Your task to perform on an android device: turn off javascript in the chrome app Image 0: 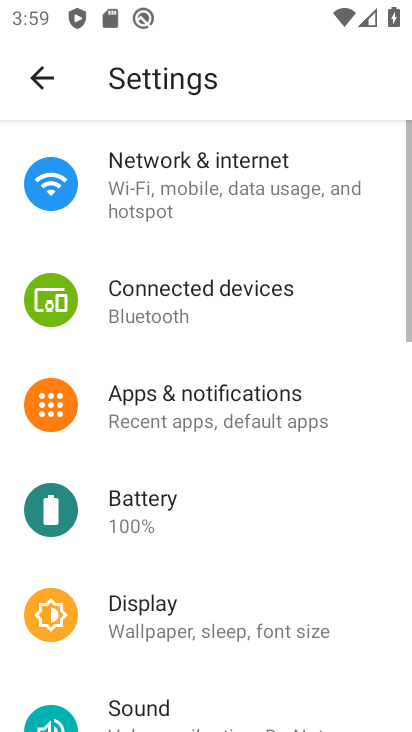
Step 0: press back button
Your task to perform on an android device: turn off javascript in the chrome app Image 1: 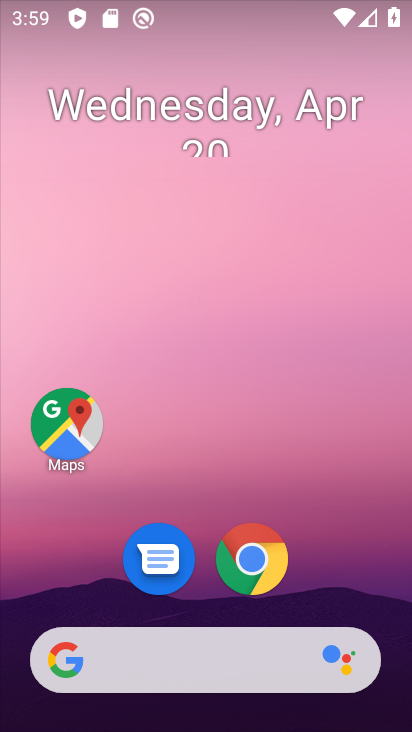
Step 1: click (277, 580)
Your task to perform on an android device: turn off javascript in the chrome app Image 2: 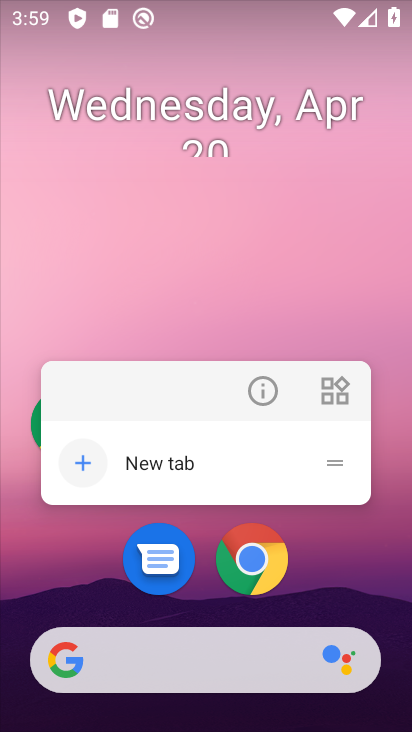
Step 2: click (265, 575)
Your task to perform on an android device: turn off javascript in the chrome app Image 3: 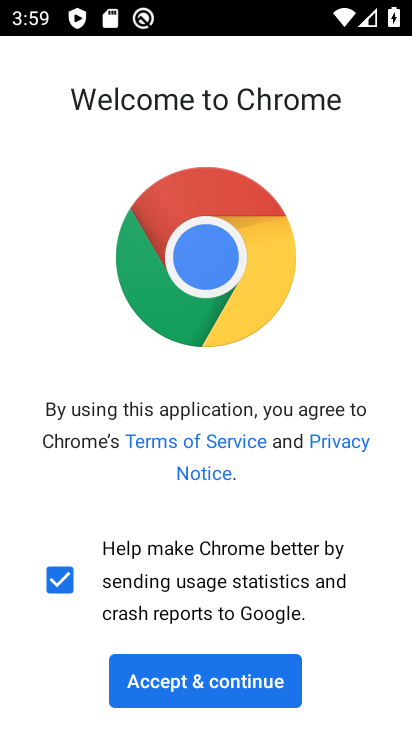
Step 3: click (153, 672)
Your task to perform on an android device: turn off javascript in the chrome app Image 4: 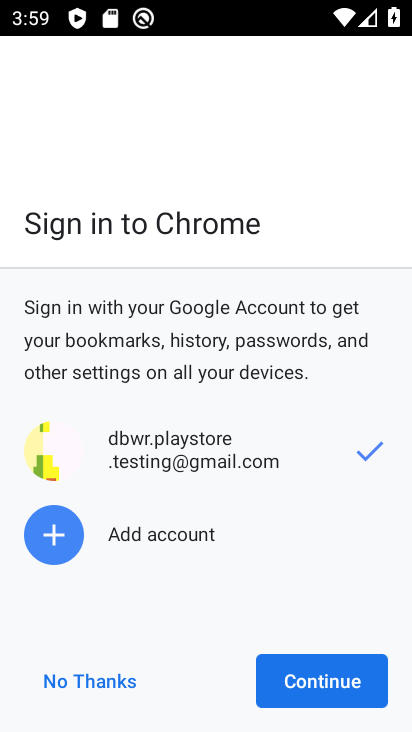
Step 4: click (286, 685)
Your task to perform on an android device: turn off javascript in the chrome app Image 5: 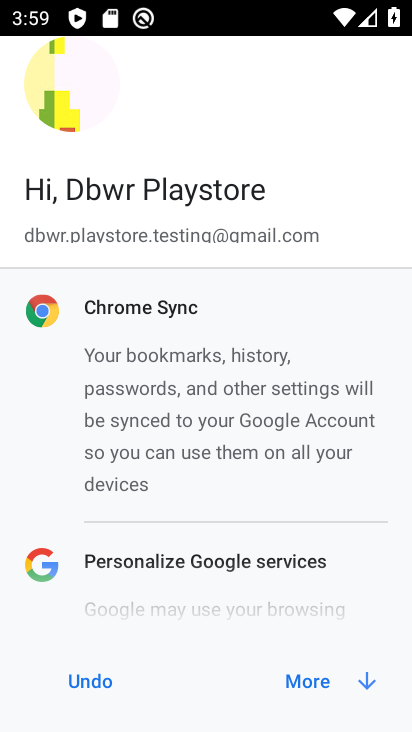
Step 5: click (286, 685)
Your task to perform on an android device: turn off javascript in the chrome app Image 6: 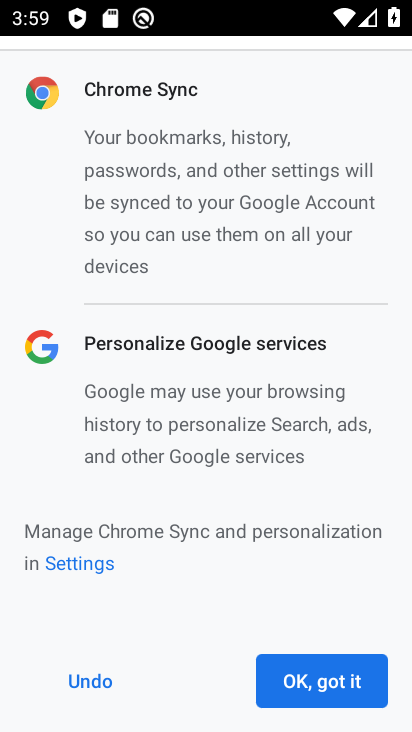
Step 6: click (286, 685)
Your task to perform on an android device: turn off javascript in the chrome app Image 7: 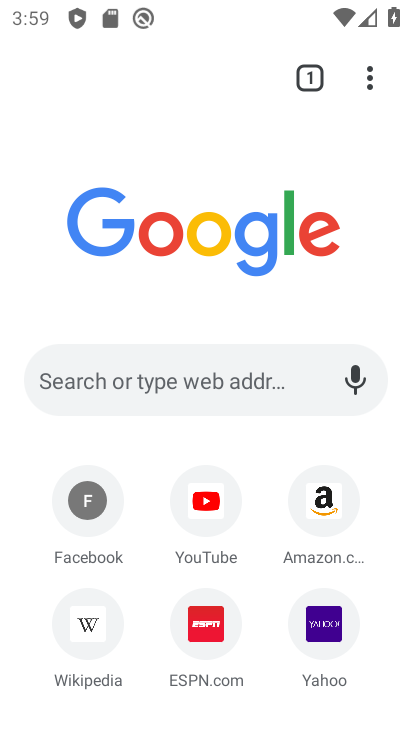
Step 7: click (362, 82)
Your task to perform on an android device: turn off javascript in the chrome app Image 8: 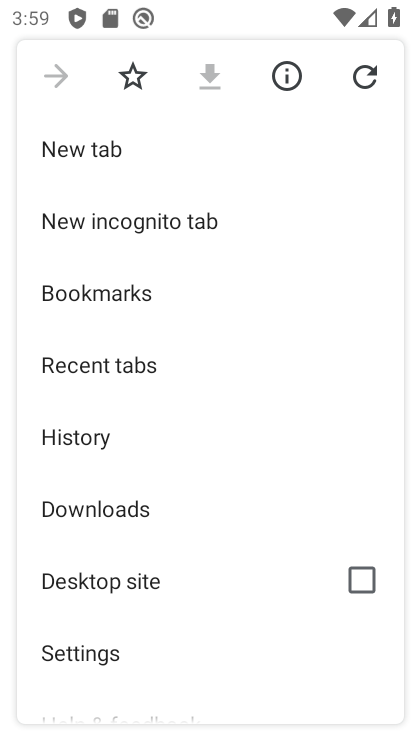
Step 8: click (119, 668)
Your task to perform on an android device: turn off javascript in the chrome app Image 9: 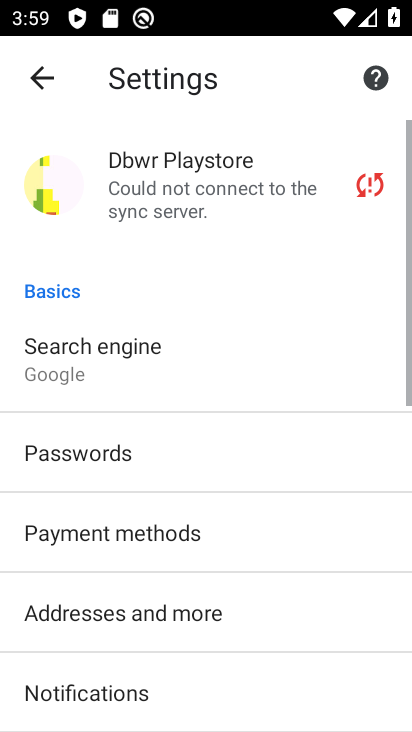
Step 9: drag from (119, 668) to (99, 494)
Your task to perform on an android device: turn off javascript in the chrome app Image 10: 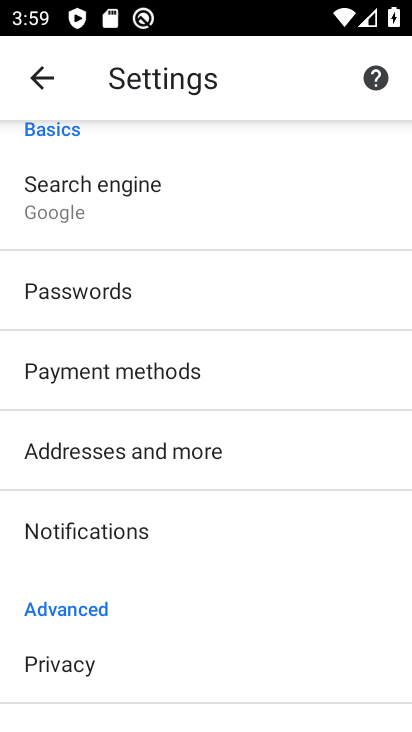
Step 10: drag from (114, 599) to (135, 278)
Your task to perform on an android device: turn off javascript in the chrome app Image 11: 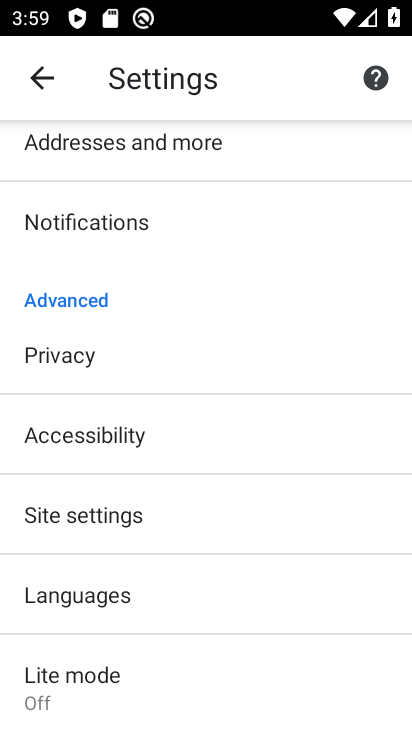
Step 11: click (115, 555)
Your task to perform on an android device: turn off javascript in the chrome app Image 12: 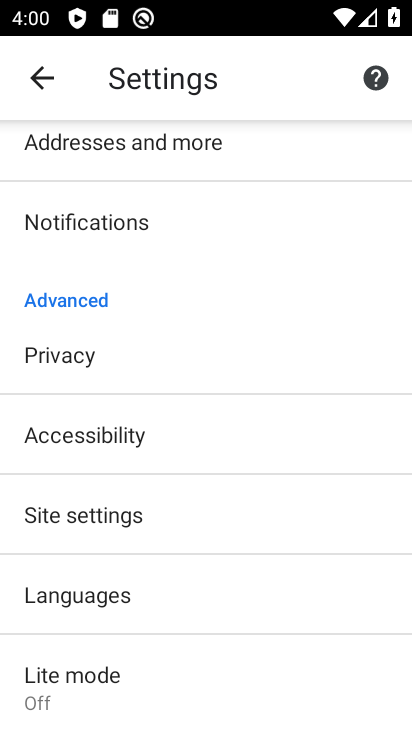
Step 12: click (105, 527)
Your task to perform on an android device: turn off javascript in the chrome app Image 13: 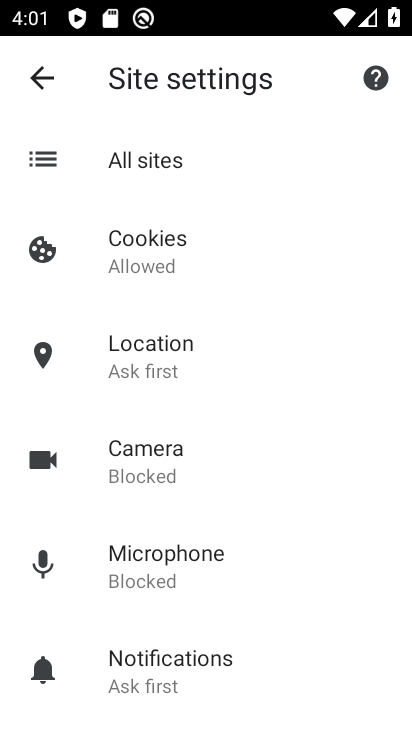
Step 13: drag from (202, 614) to (244, 300)
Your task to perform on an android device: turn off javascript in the chrome app Image 14: 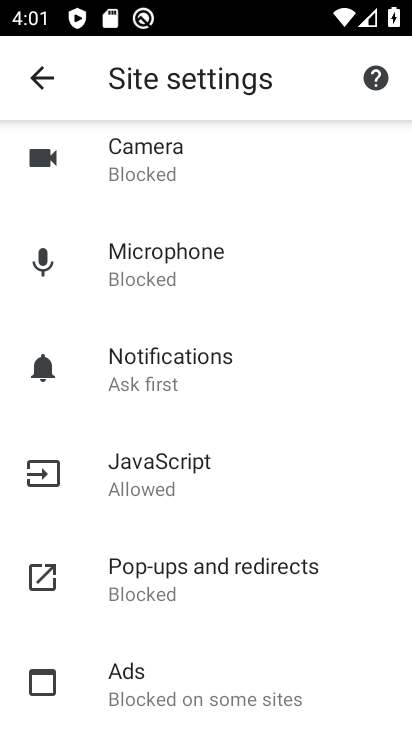
Step 14: click (184, 456)
Your task to perform on an android device: turn off javascript in the chrome app Image 15: 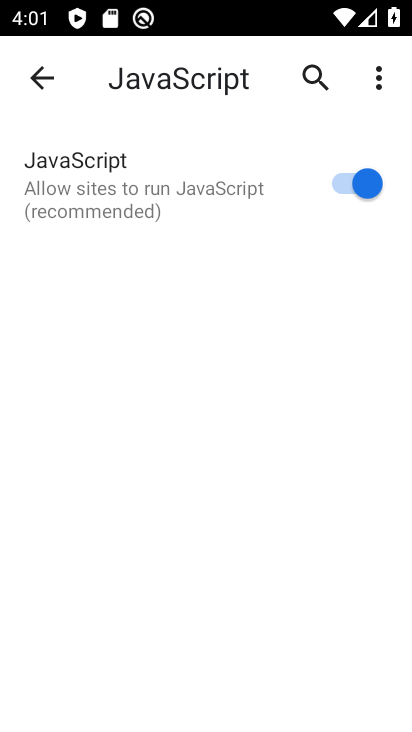
Step 15: click (340, 187)
Your task to perform on an android device: turn off javascript in the chrome app Image 16: 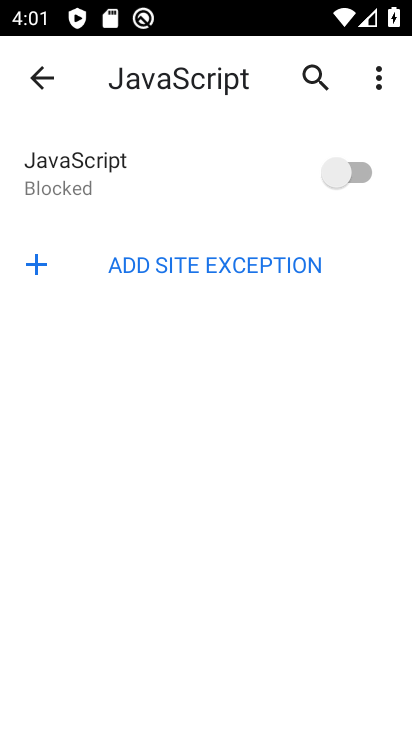
Step 16: task complete